Your task to perform on an android device: Open sound settings Image 0: 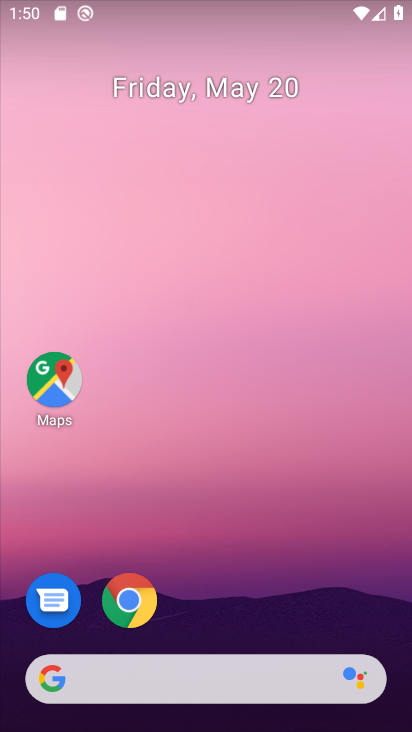
Step 0: drag from (269, 569) to (161, 90)
Your task to perform on an android device: Open sound settings Image 1: 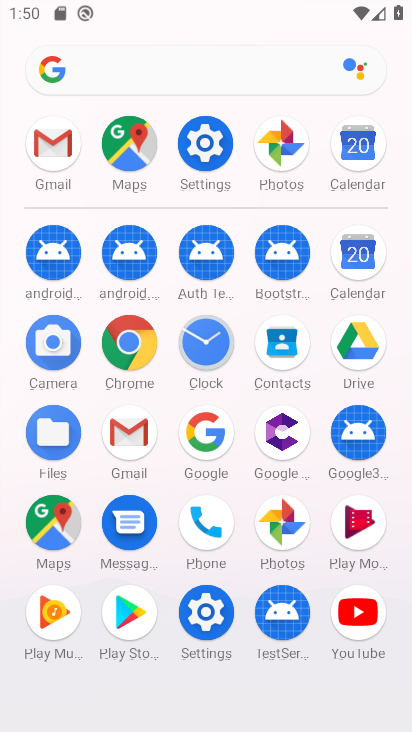
Step 1: click (194, 125)
Your task to perform on an android device: Open sound settings Image 2: 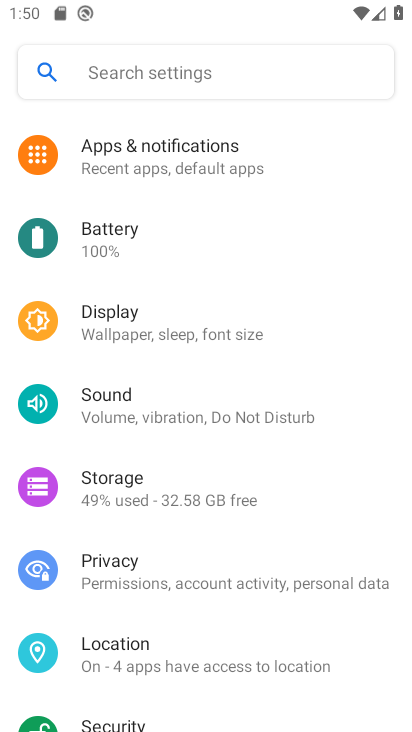
Step 2: click (218, 425)
Your task to perform on an android device: Open sound settings Image 3: 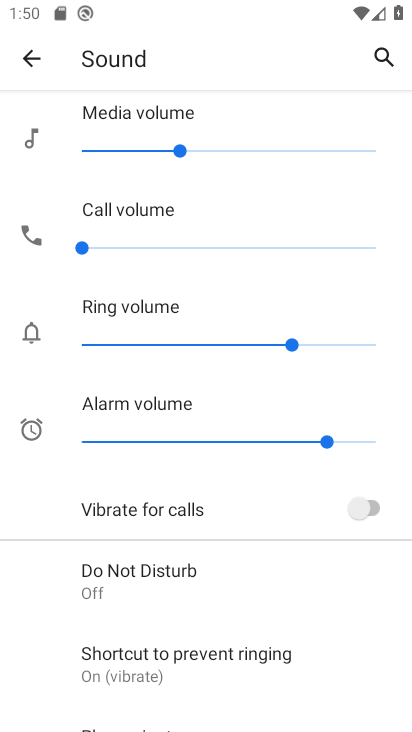
Step 3: task complete